Your task to perform on an android device: Toggle the flashlight Image 0: 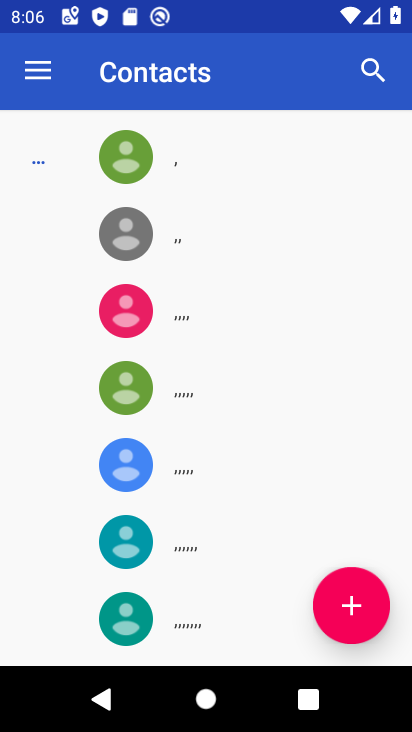
Step 0: press home button
Your task to perform on an android device: Toggle the flashlight Image 1: 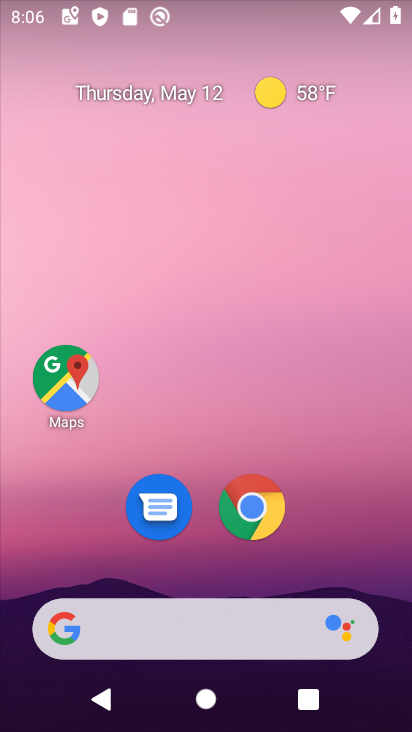
Step 1: drag from (203, 587) to (183, 243)
Your task to perform on an android device: Toggle the flashlight Image 2: 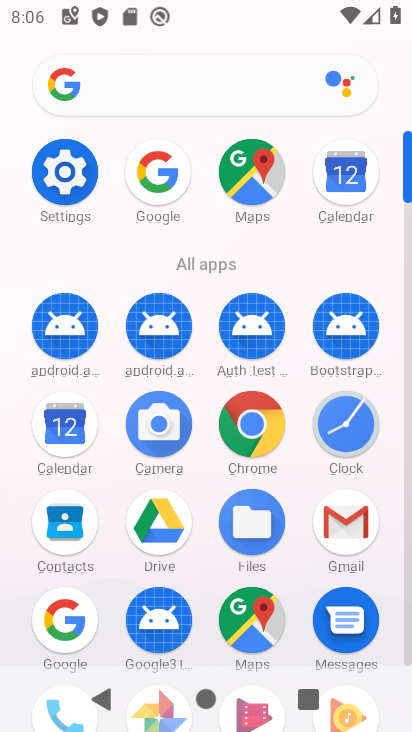
Step 2: click (86, 178)
Your task to perform on an android device: Toggle the flashlight Image 3: 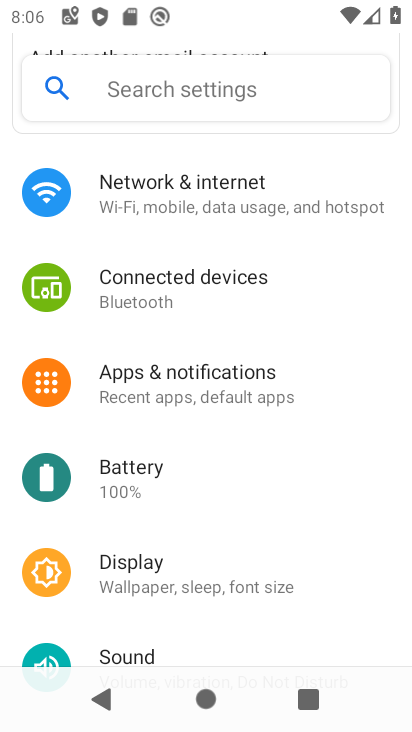
Step 3: click (191, 363)
Your task to perform on an android device: Toggle the flashlight Image 4: 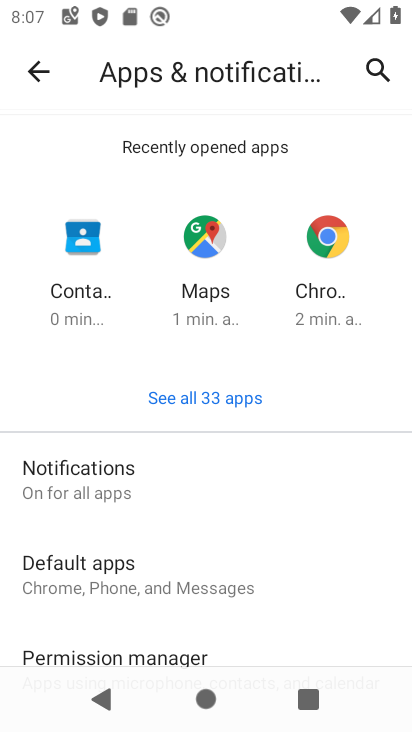
Step 4: task complete